Your task to perform on an android device: turn on bluetooth scan Image 0: 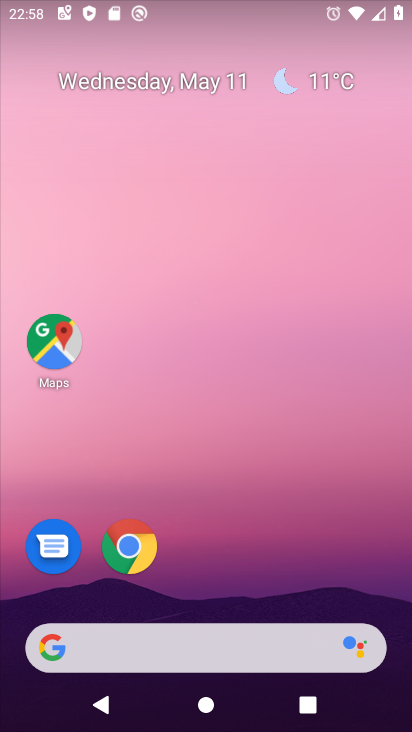
Step 0: drag from (384, 619) to (277, 105)
Your task to perform on an android device: turn on bluetooth scan Image 1: 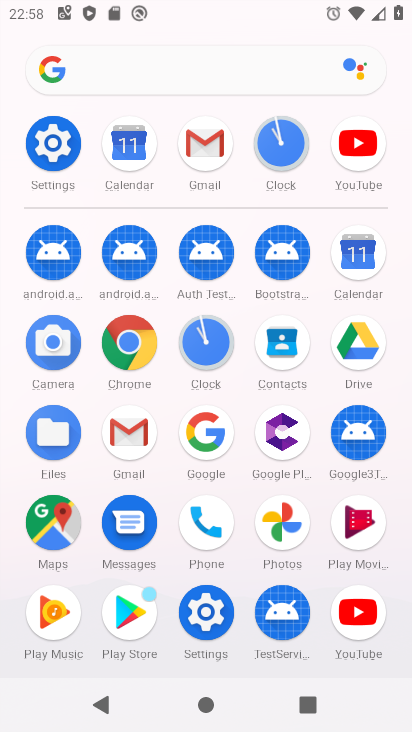
Step 1: click (208, 613)
Your task to perform on an android device: turn on bluetooth scan Image 2: 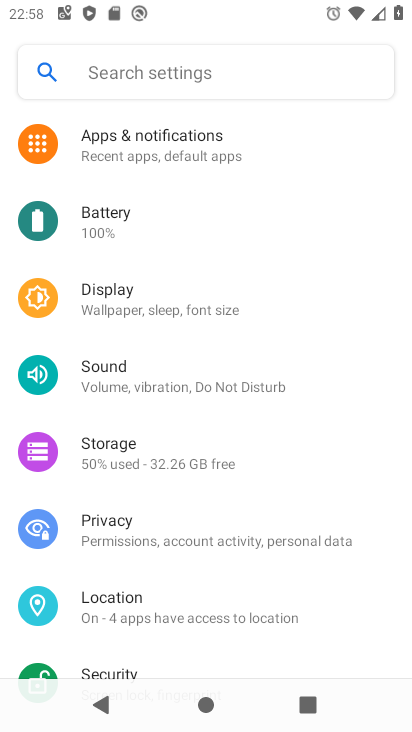
Step 2: click (127, 604)
Your task to perform on an android device: turn on bluetooth scan Image 3: 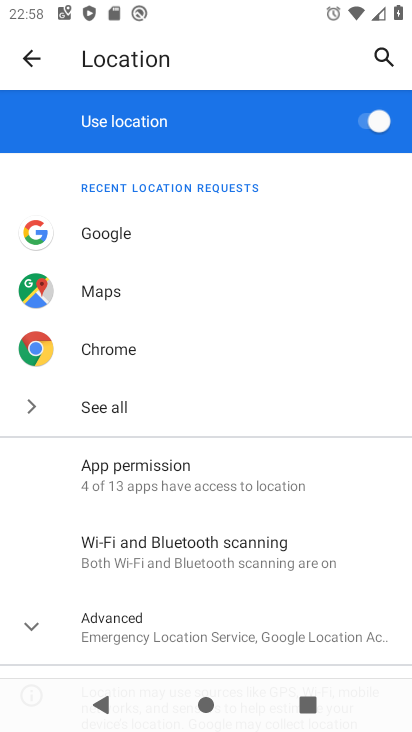
Step 3: click (161, 545)
Your task to perform on an android device: turn on bluetooth scan Image 4: 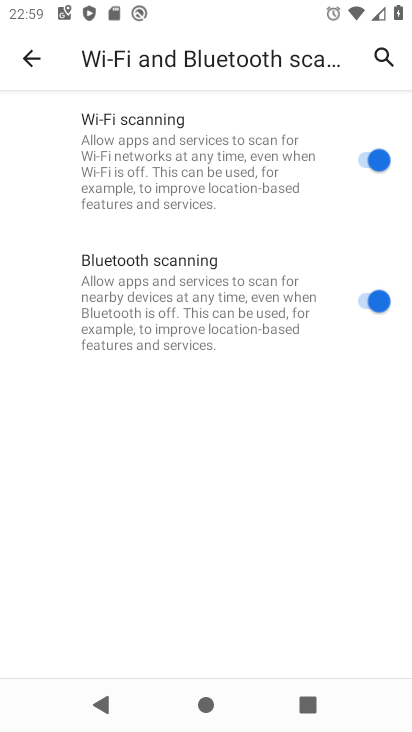
Step 4: task complete